Your task to perform on an android device: Open accessibility settings Image 0: 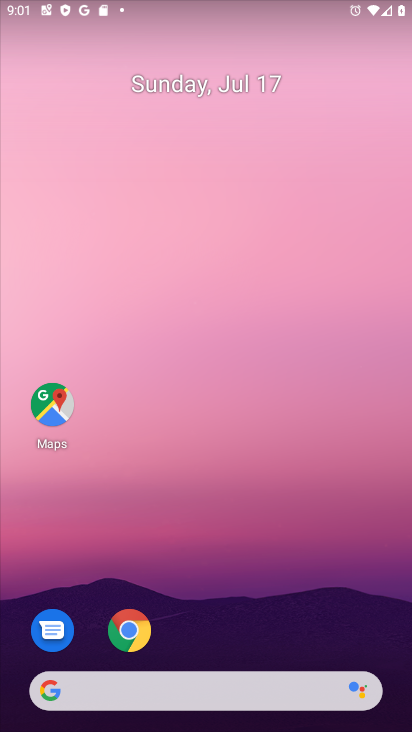
Step 0: drag from (183, 527) to (179, 119)
Your task to perform on an android device: Open accessibility settings Image 1: 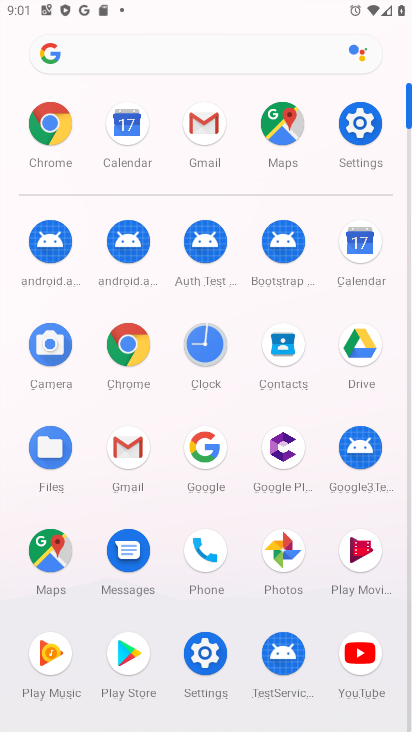
Step 1: click (352, 129)
Your task to perform on an android device: Open accessibility settings Image 2: 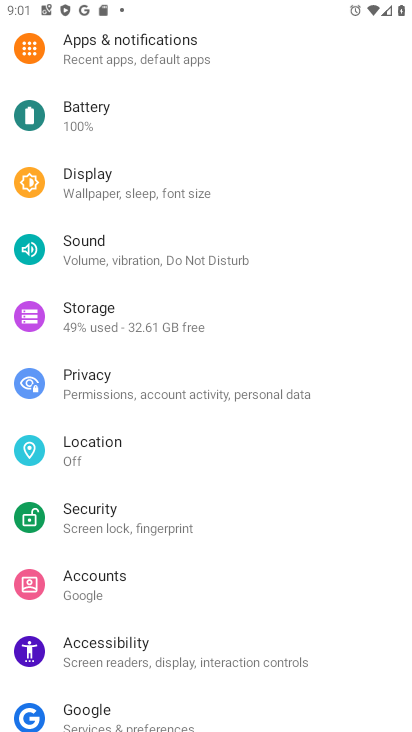
Step 2: click (91, 654)
Your task to perform on an android device: Open accessibility settings Image 3: 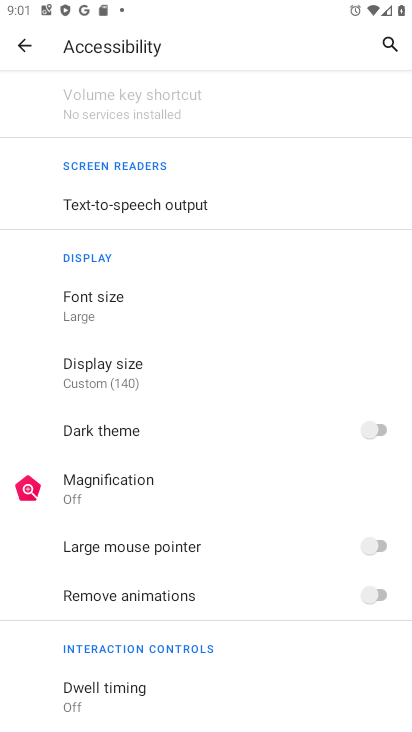
Step 3: task complete